Your task to perform on an android device: turn off priority inbox in the gmail app Image 0: 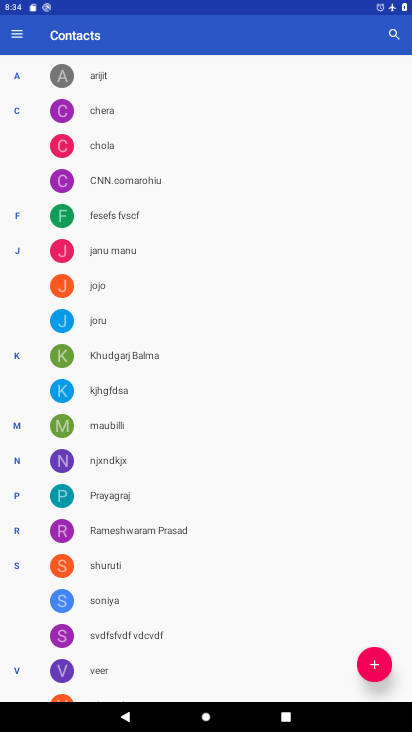
Step 0: press home button
Your task to perform on an android device: turn off priority inbox in the gmail app Image 1: 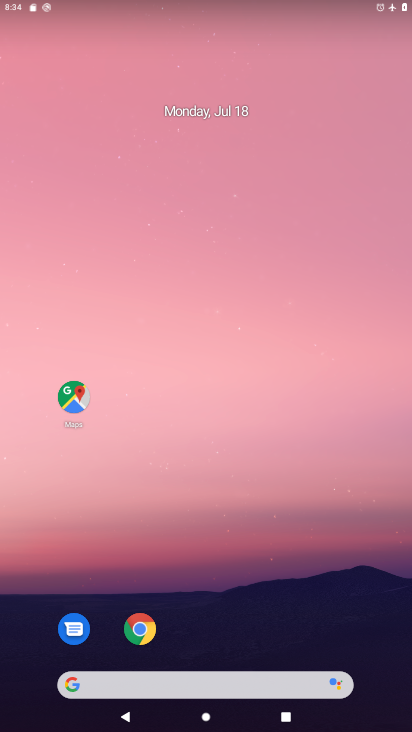
Step 1: drag from (205, 619) to (223, 228)
Your task to perform on an android device: turn off priority inbox in the gmail app Image 2: 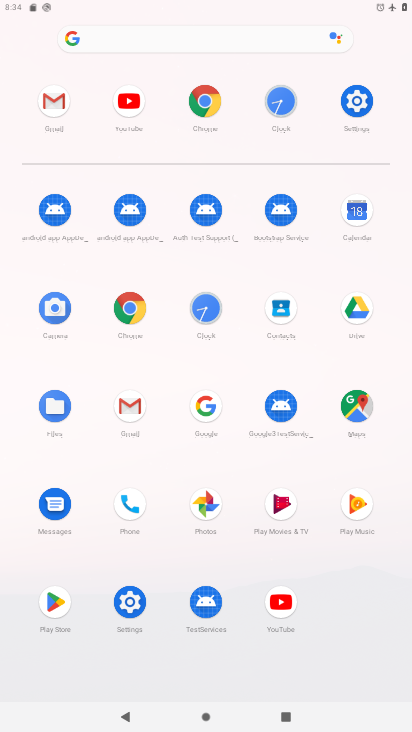
Step 2: click (132, 415)
Your task to perform on an android device: turn off priority inbox in the gmail app Image 3: 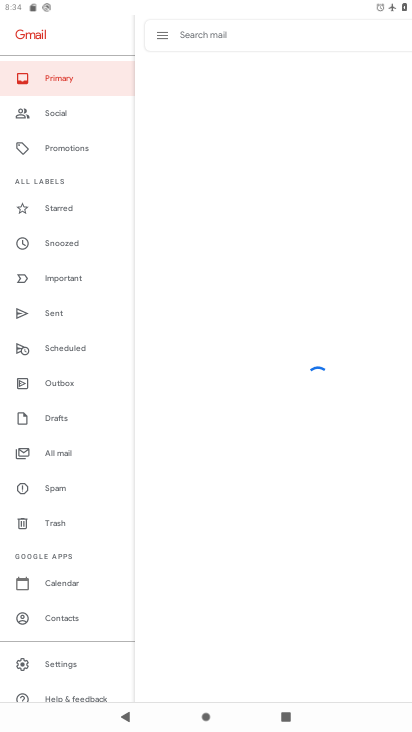
Step 3: drag from (63, 645) to (78, 420)
Your task to perform on an android device: turn off priority inbox in the gmail app Image 4: 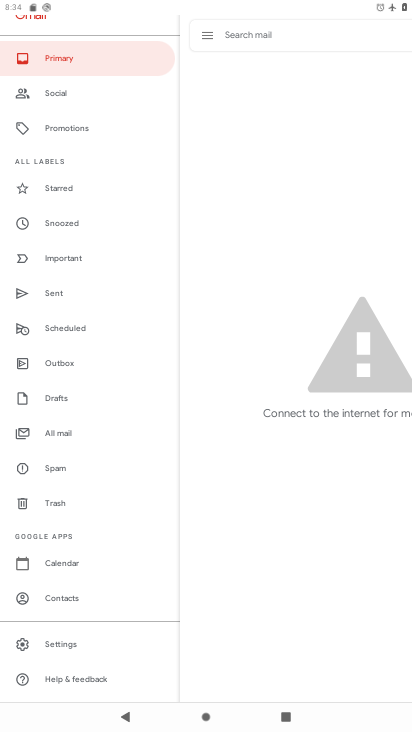
Step 4: click (69, 645)
Your task to perform on an android device: turn off priority inbox in the gmail app Image 5: 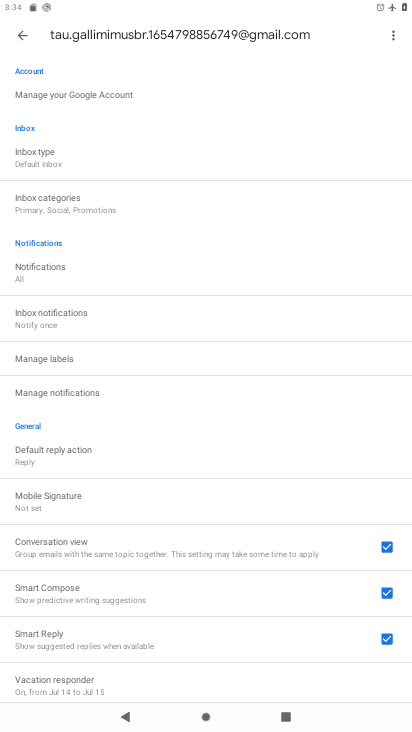
Step 5: click (80, 161)
Your task to perform on an android device: turn off priority inbox in the gmail app Image 6: 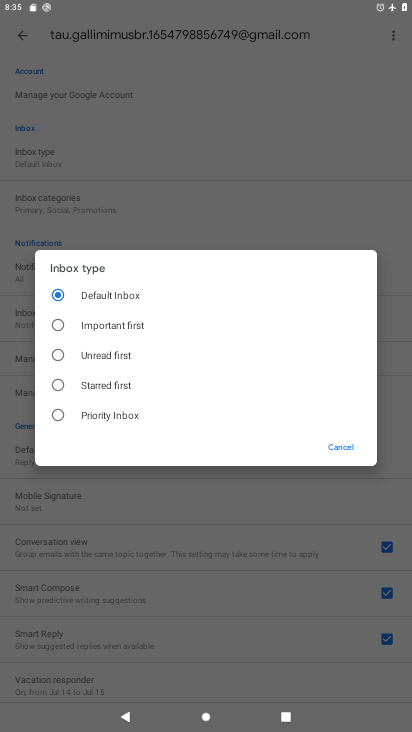
Step 6: click (98, 333)
Your task to perform on an android device: turn off priority inbox in the gmail app Image 7: 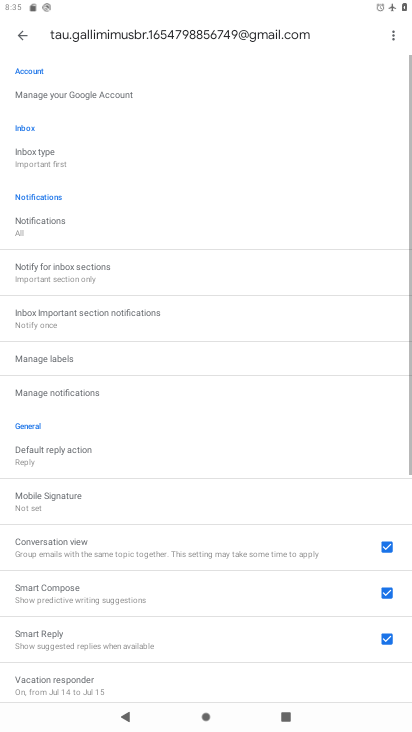
Step 7: task complete